Your task to perform on an android device: turn off javascript in the chrome app Image 0: 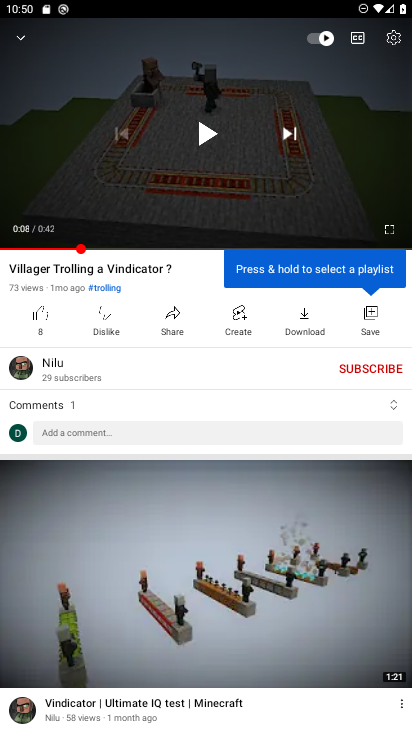
Step 0: press home button
Your task to perform on an android device: turn off javascript in the chrome app Image 1: 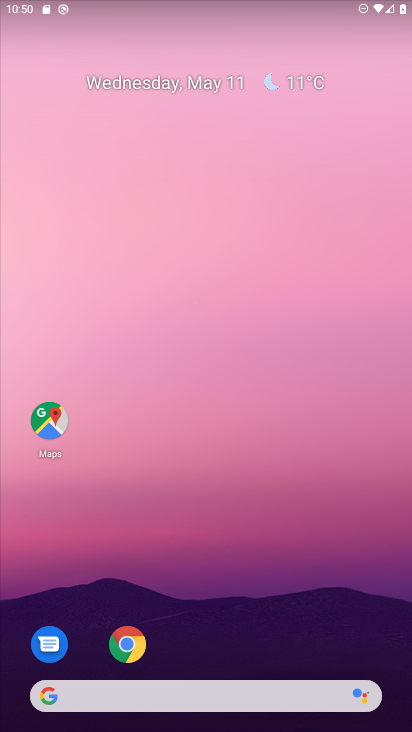
Step 1: click (136, 646)
Your task to perform on an android device: turn off javascript in the chrome app Image 2: 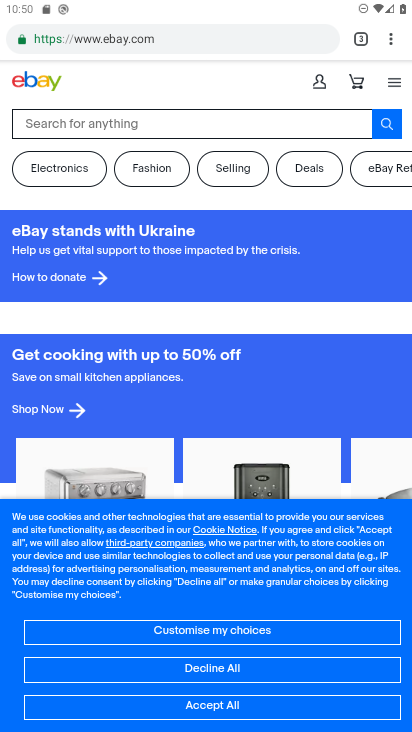
Step 2: drag from (393, 43) to (239, 470)
Your task to perform on an android device: turn off javascript in the chrome app Image 3: 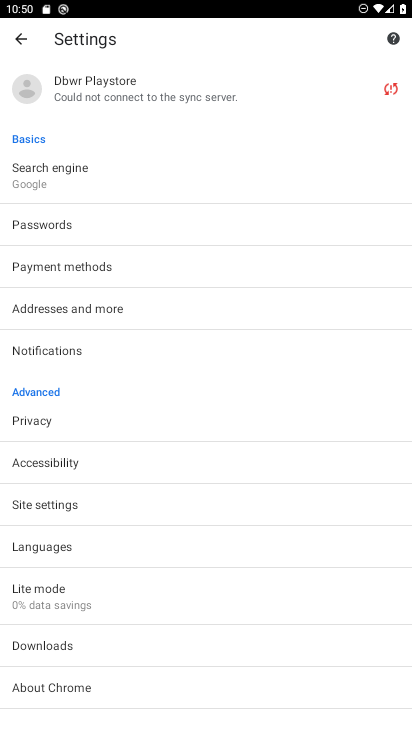
Step 3: click (38, 504)
Your task to perform on an android device: turn off javascript in the chrome app Image 4: 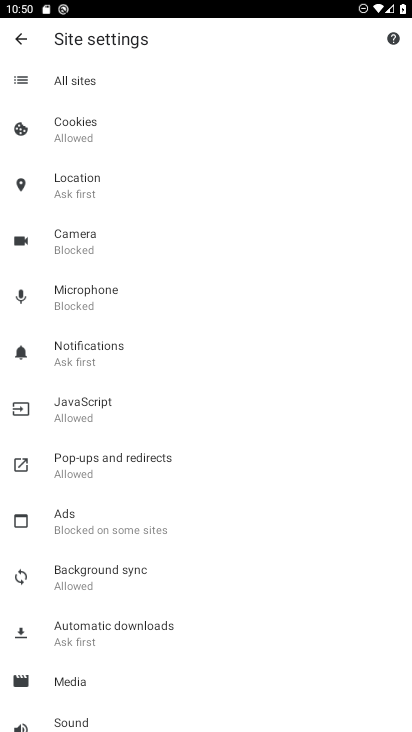
Step 4: click (82, 405)
Your task to perform on an android device: turn off javascript in the chrome app Image 5: 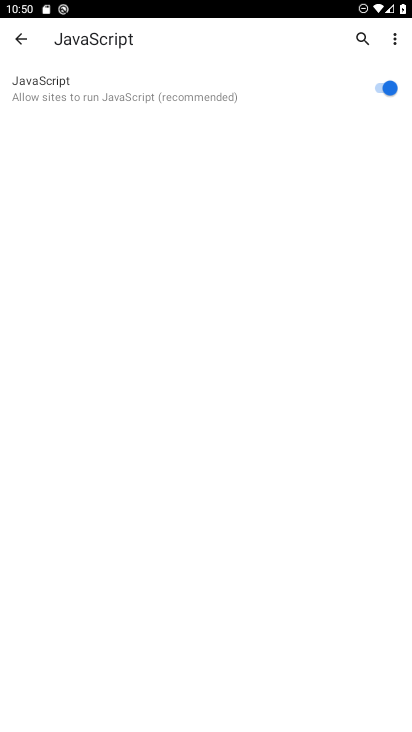
Step 5: click (387, 90)
Your task to perform on an android device: turn off javascript in the chrome app Image 6: 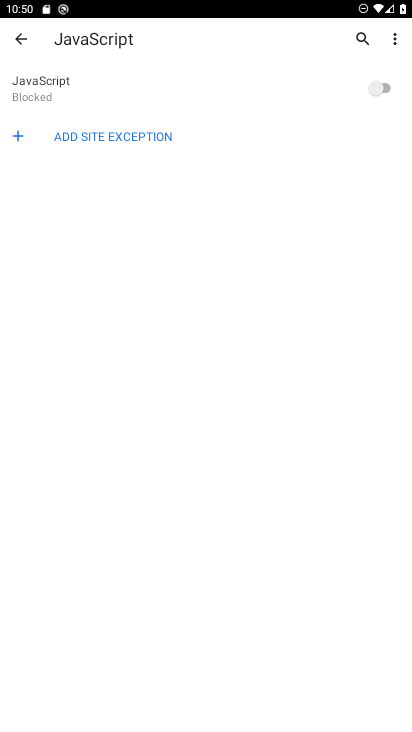
Step 6: task complete